Your task to perform on an android device: search for starred emails in the gmail app Image 0: 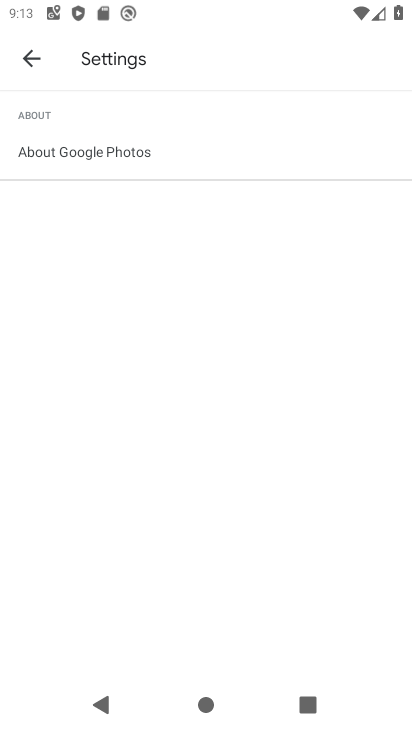
Step 0: press home button
Your task to perform on an android device: search for starred emails in the gmail app Image 1: 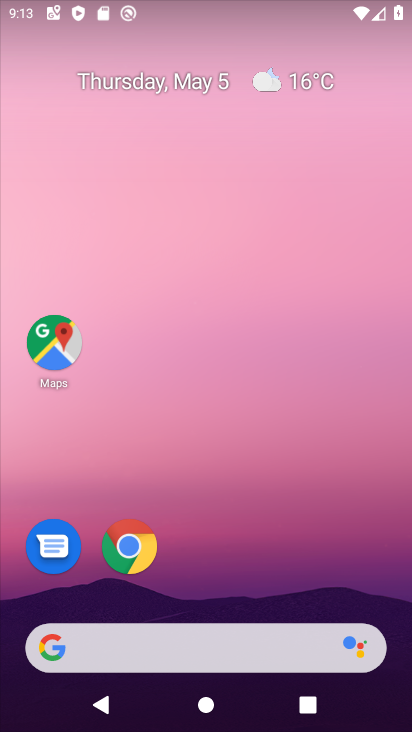
Step 1: drag from (203, 646) to (323, 112)
Your task to perform on an android device: search for starred emails in the gmail app Image 2: 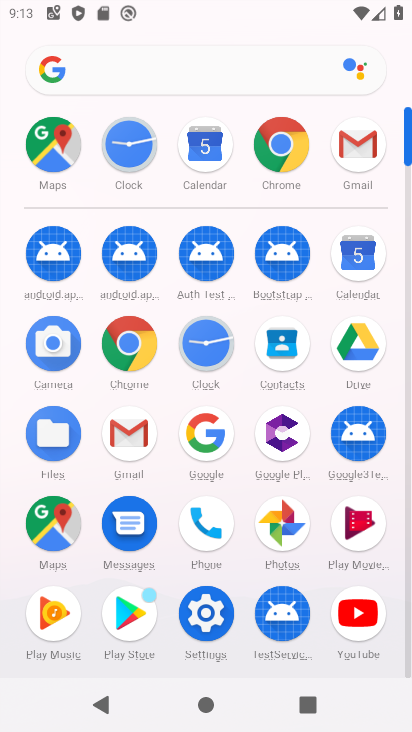
Step 2: click (359, 163)
Your task to perform on an android device: search for starred emails in the gmail app Image 3: 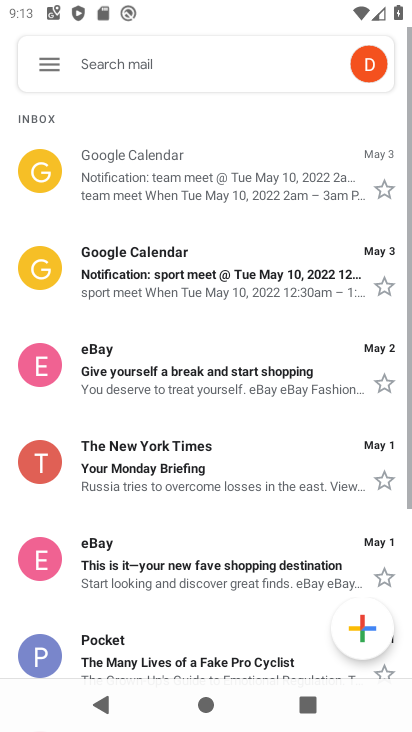
Step 3: click (52, 67)
Your task to perform on an android device: search for starred emails in the gmail app Image 4: 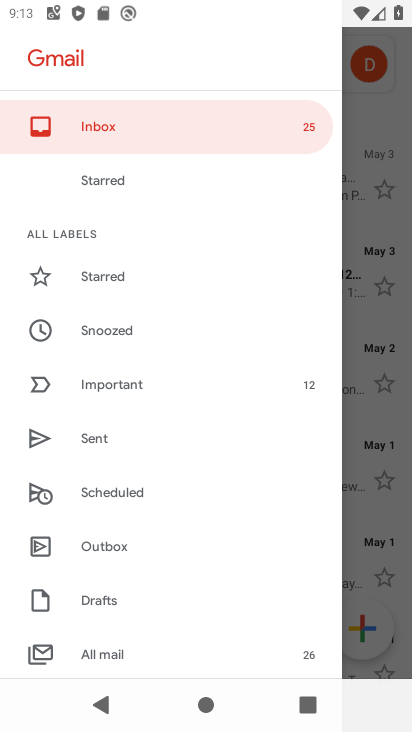
Step 4: click (128, 272)
Your task to perform on an android device: search for starred emails in the gmail app Image 5: 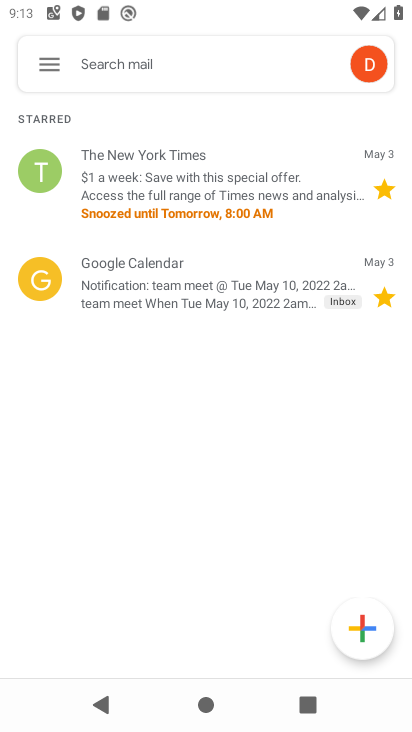
Step 5: task complete